Your task to perform on an android device: visit the assistant section in the google photos Image 0: 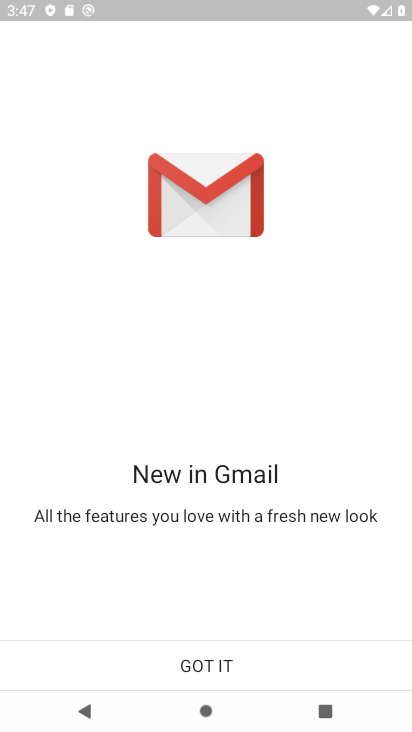
Step 0: press home button
Your task to perform on an android device: visit the assistant section in the google photos Image 1: 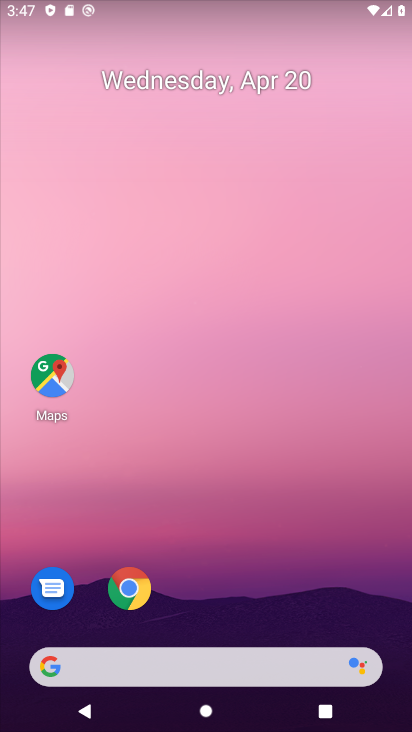
Step 1: drag from (227, 313) to (241, 21)
Your task to perform on an android device: visit the assistant section in the google photos Image 2: 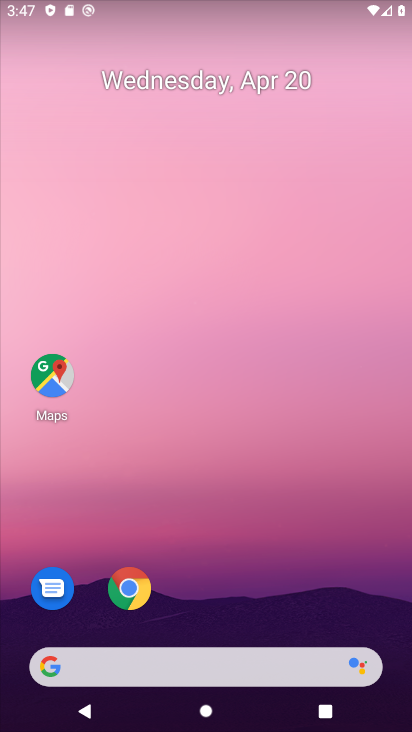
Step 2: drag from (201, 543) to (223, 53)
Your task to perform on an android device: visit the assistant section in the google photos Image 3: 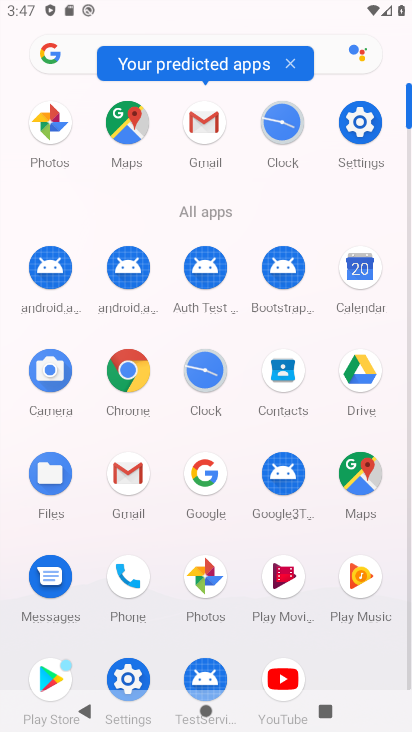
Step 3: click (45, 157)
Your task to perform on an android device: visit the assistant section in the google photos Image 4: 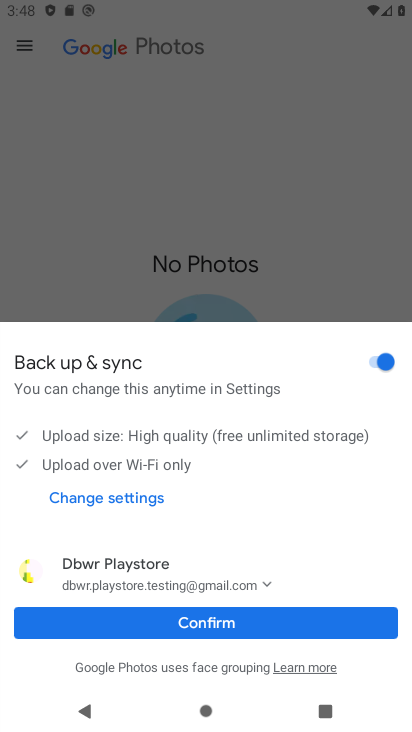
Step 4: click (234, 623)
Your task to perform on an android device: visit the assistant section in the google photos Image 5: 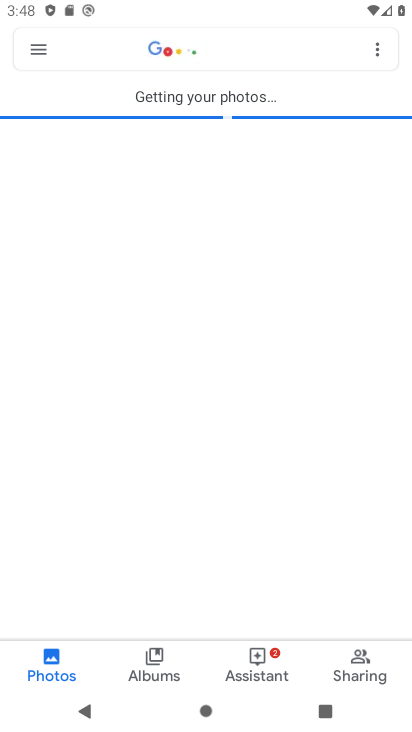
Step 5: click (256, 662)
Your task to perform on an android device: visit the assistant section in the google photos Image 6: 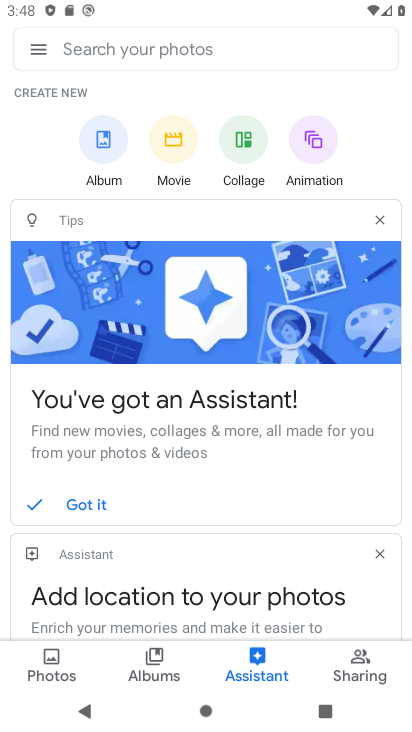
Step 6: task complete